Your task to perform on an android device: Go to eBay Image 0: 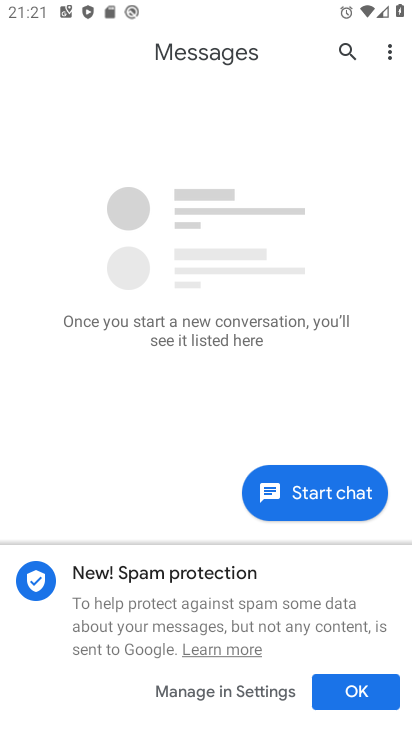
Step 0: press home button
Your task to perform on an android device: Go to eBay Image 1: 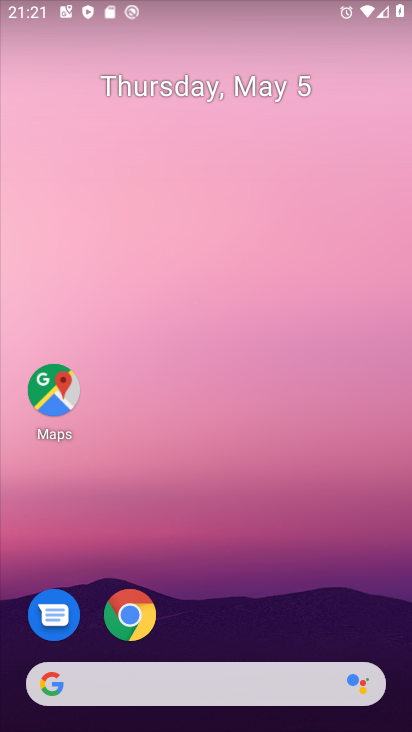
Step 1: click (136, 620)
Your task to perform on an android device: Go to eBay Image 2: 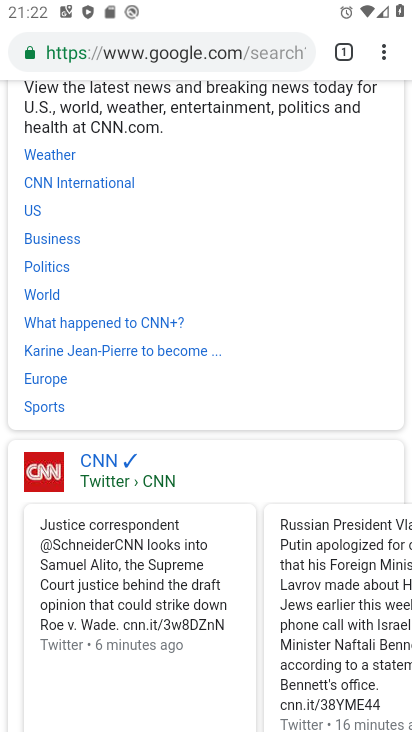
Step 2: click (199, 57)
Your task to perform on an android device: Go to eBay Image 3: 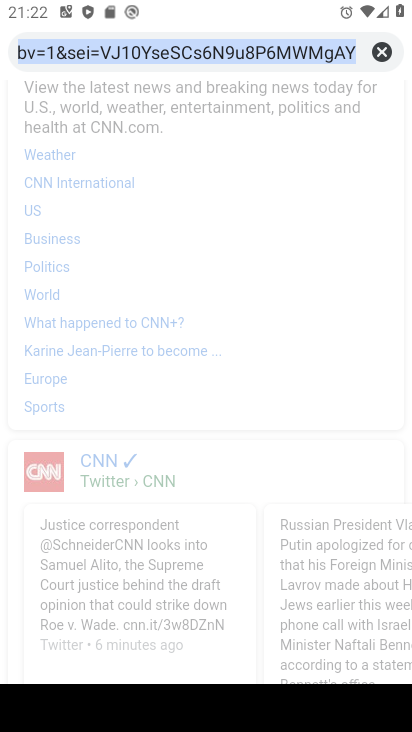
Step 3: type "eBay"
Your task to perform on an android device: Go to eBay Image 4: 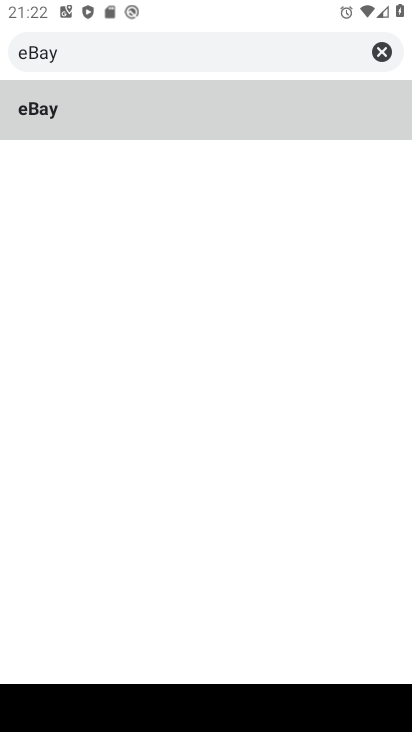
Step 4: click (98, 105)
Your task to perform on an android device: Go to eBay Image 5: 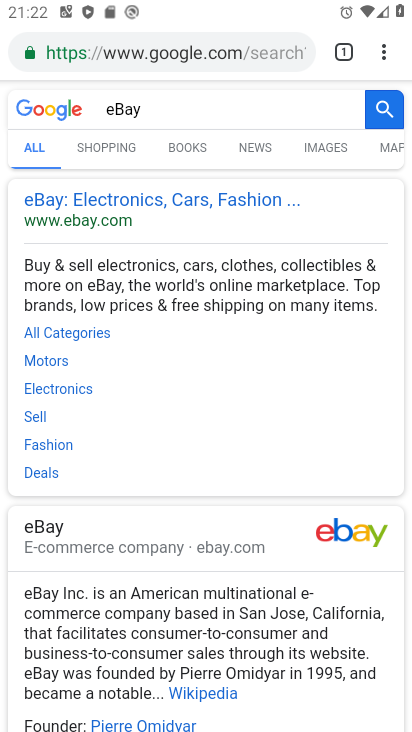
Step 5: task complete